Your task to perform on an android device: How do I get to the nearest Nordstrom? Image 0: 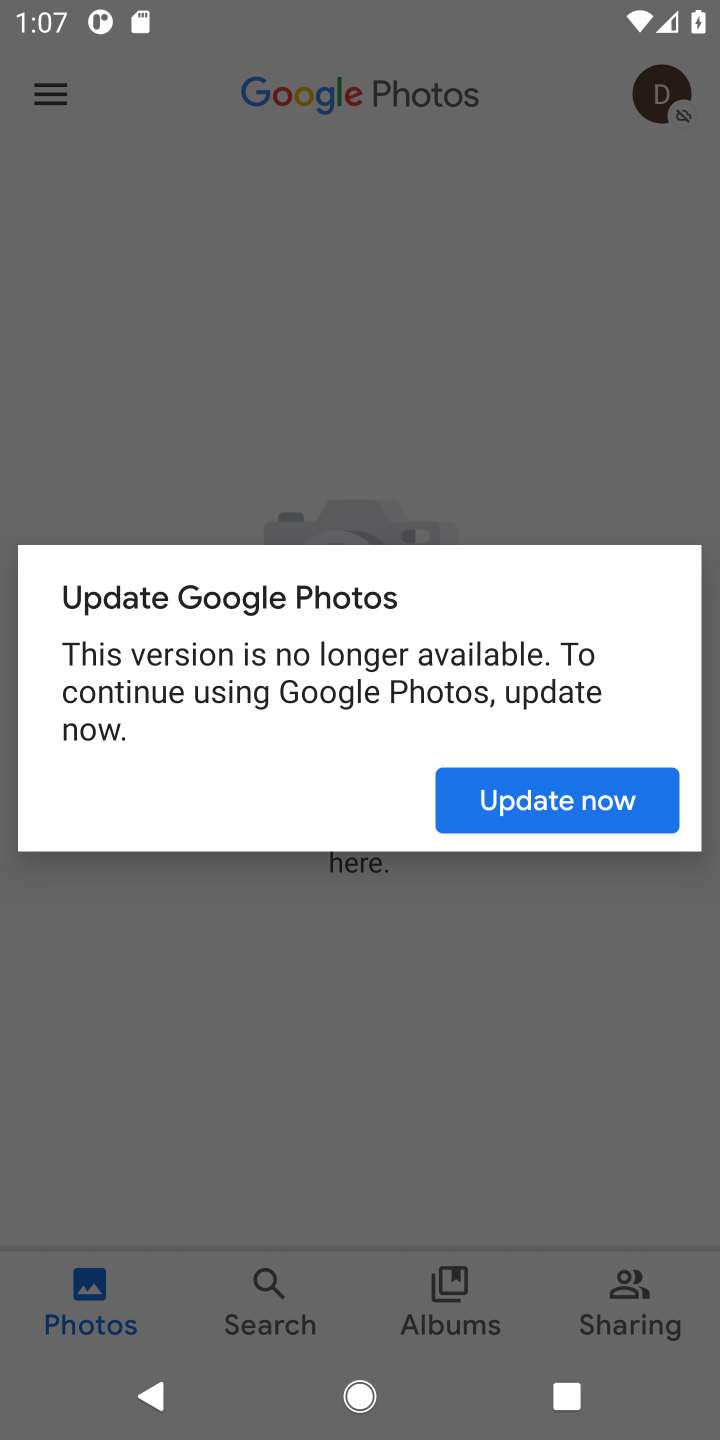
Step 0: press home button
Your task to perform on an android device: How do I get to the nearest Nordstrom? Image 1: 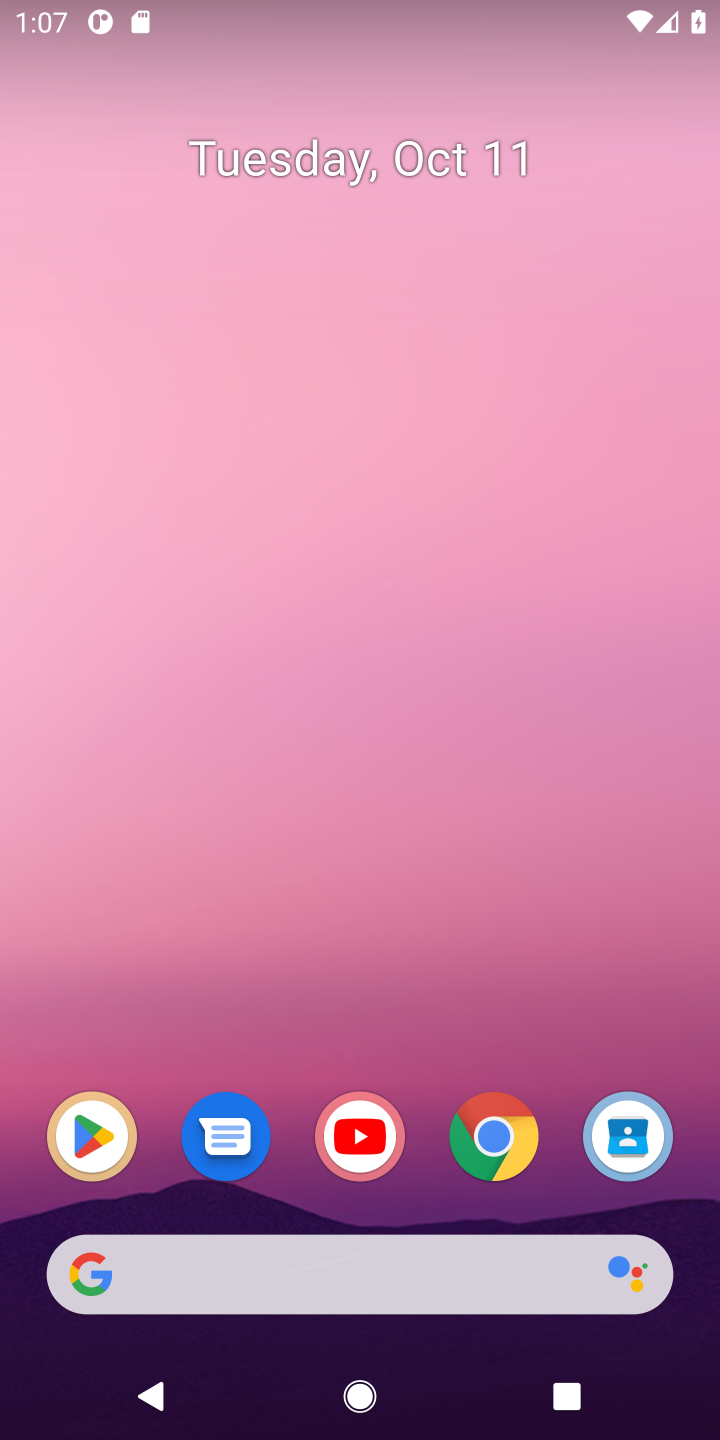
Step 1: click (352, 1277)
Your task to perform on an android device: How do I get to the nearest Nordstrom? Image 2: 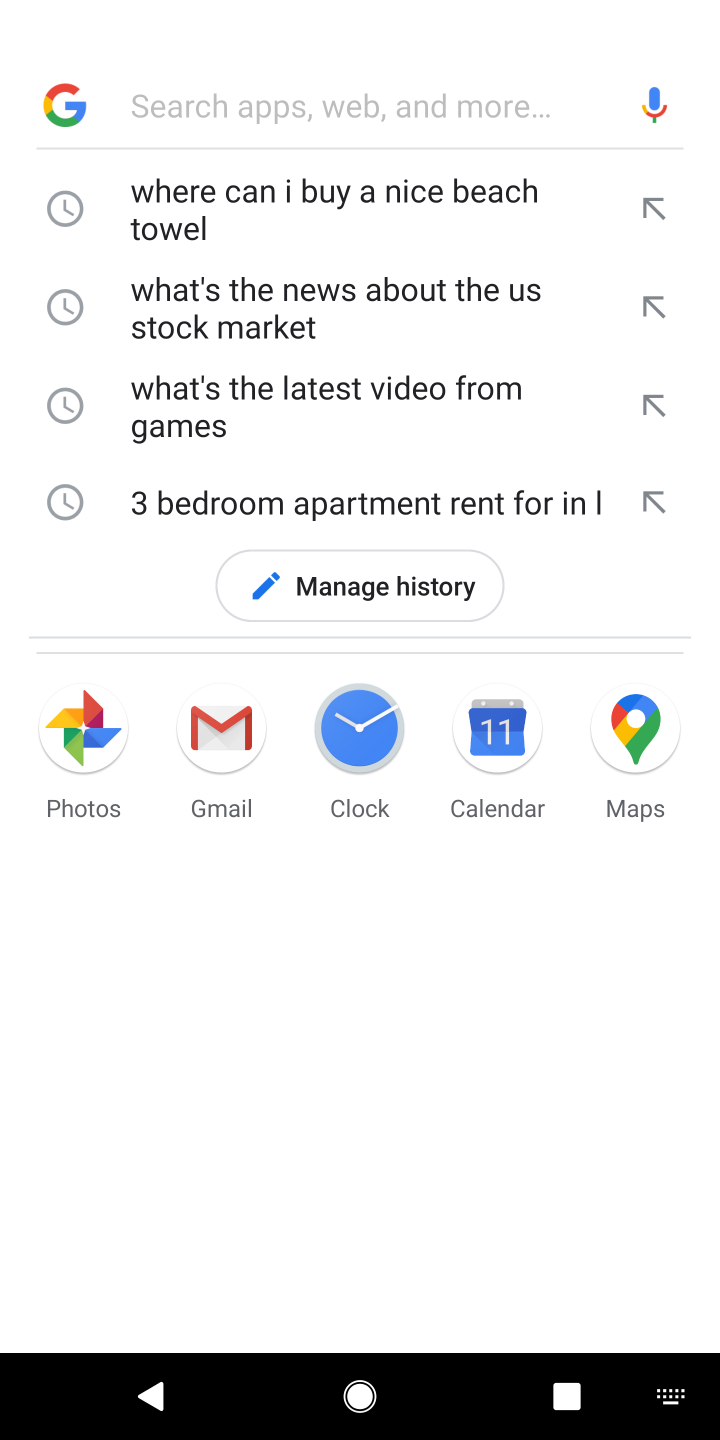
Step 2: type "How do I get to the nearest Nordstrom"
Your task to perform on an android device: How do I get to the nearest Nordstrom? Image 3: 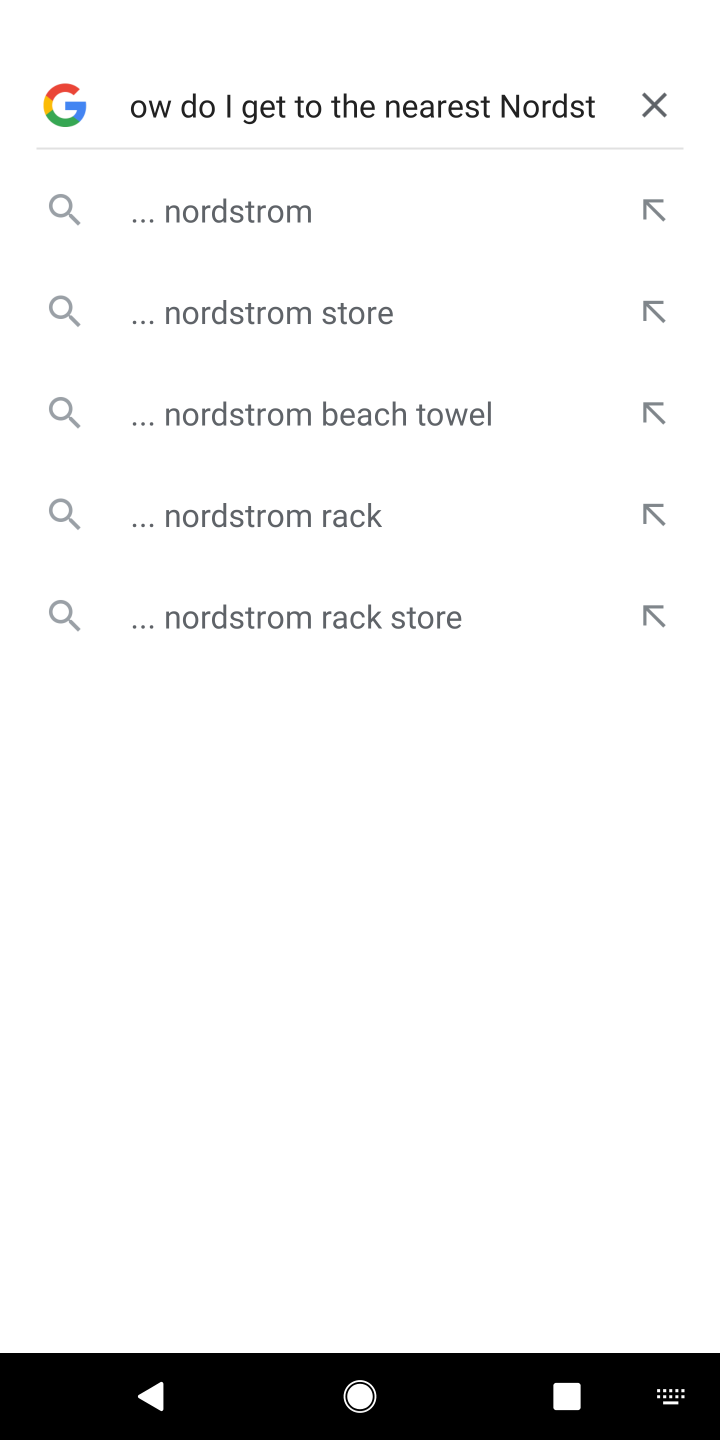
Step 3: press enter
Your task to perform on an android device: How do I get to the nearest Nordstrom? Image 4: 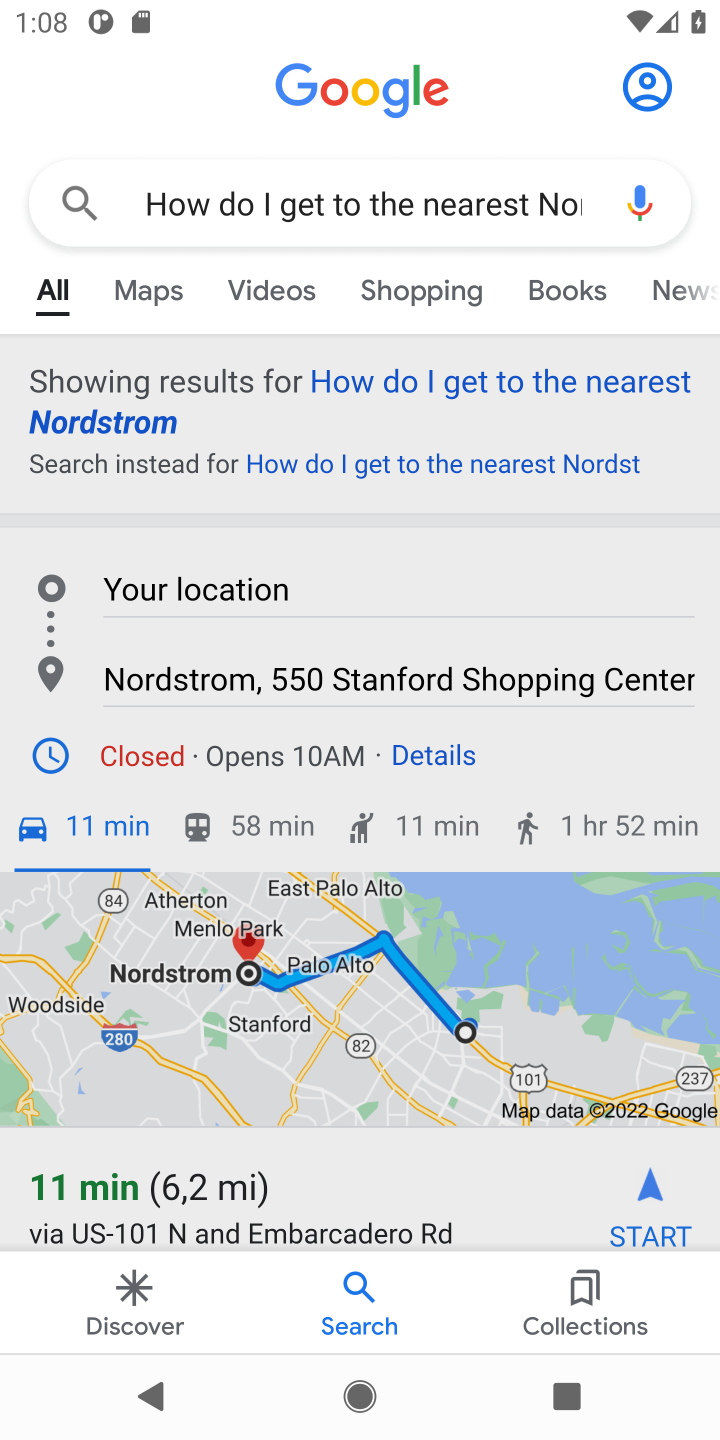
Step 4: task complete